Your task to perform on an android device: Open Google Image 0: 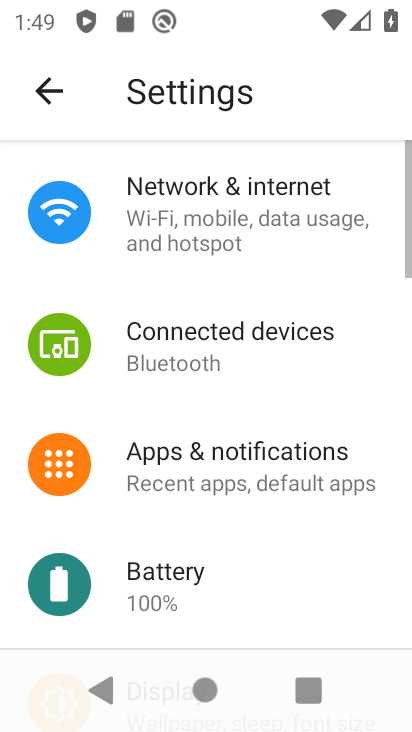
Step 0: press home button
Your task to perform on an android device: Open Google Image 1: 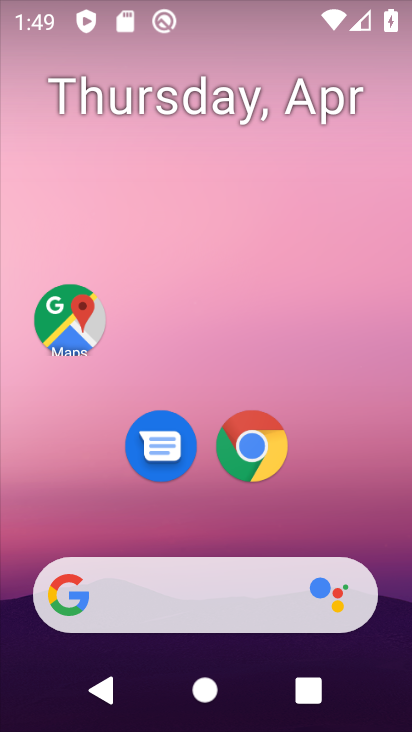
Step 1: drag from (203, 682) to (188, 149)
Your task to perform on an android device: Open Google Image 2: 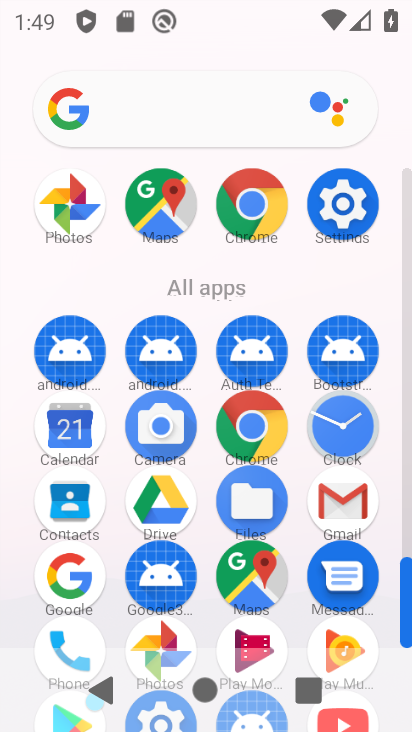
Step 2: click (64, 574)
Your task to perform on an android device: Open Google Image 3: 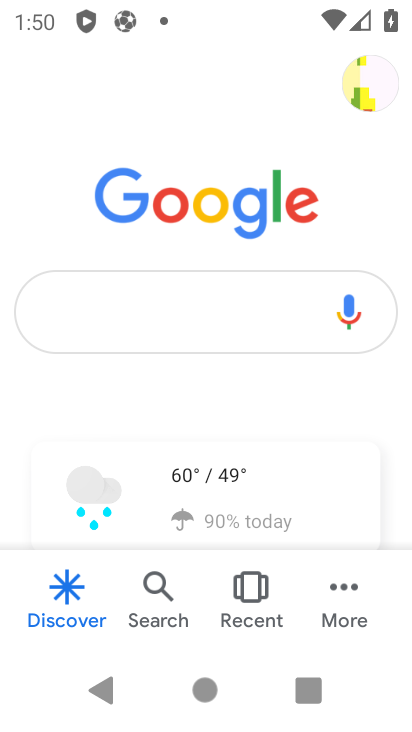
Step 3: task complete